Your task to perform on an android device: Show me popular games on the Play Store Image 0: 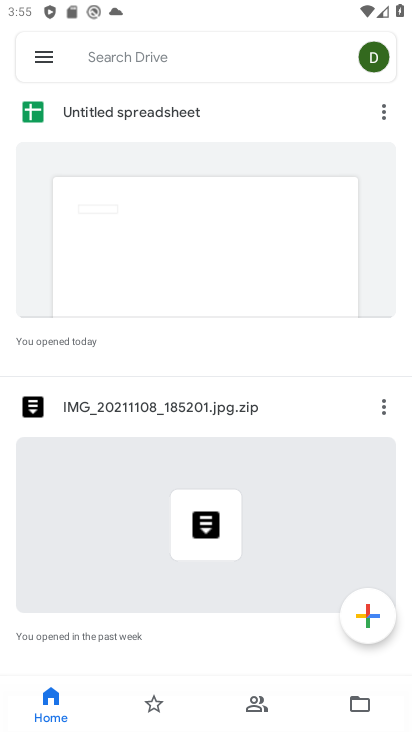
Step 0: press home button
Your task to perform on an android device: Show me popular games on the Play Store Image 1: 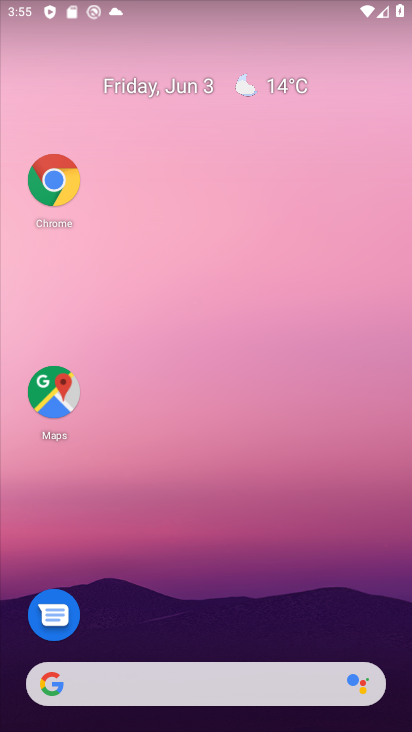
Step 1: drag from (146, 727) to (118, 62)
Your task to perform on an android device: Show me popular games on the Play Store Image 2: 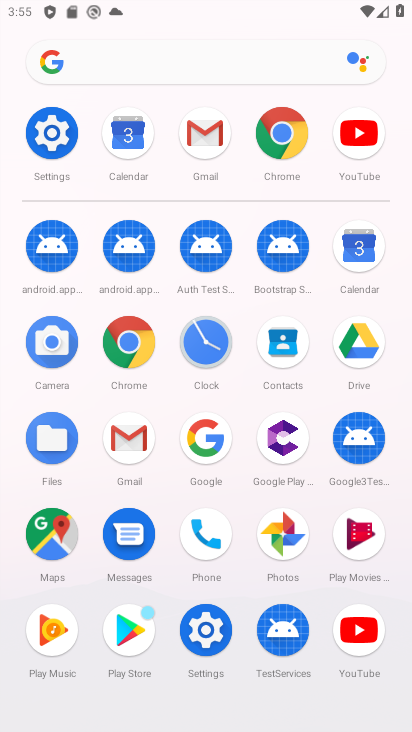
Step 2: click (115, 645)
Your task to perform on an android device: Show me popular games on the Play Store Image 3: 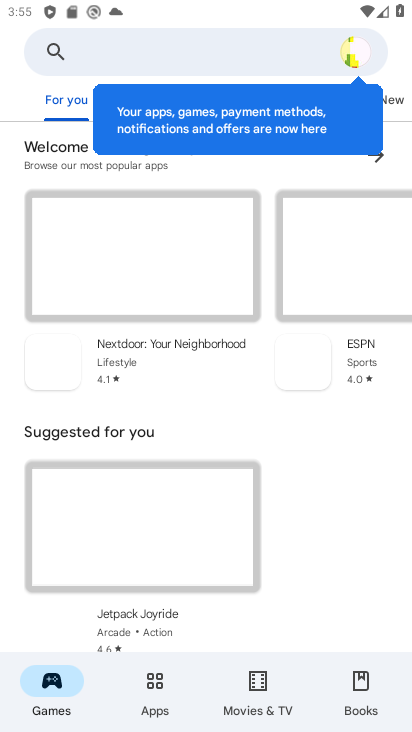
Step 3: click (21, 85)
Your task to perform on an android device: Show me popular games on the Play Store Image 4: 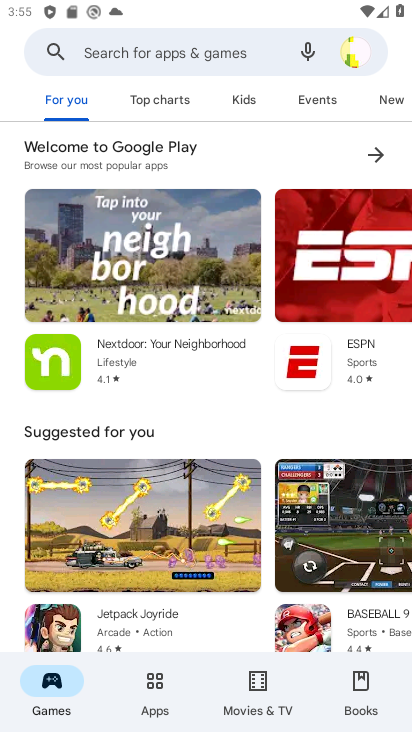
Step 4: click (168, 100)
Your task to perform on an android device: Show me popular games on the Play Store Image 5: 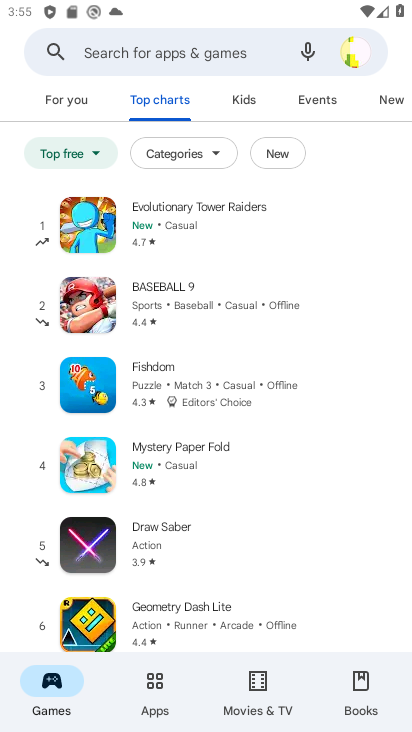
Step 5: drag from (404, 109) to (0, 93)
Your task to perform on an android device: Show me popular games on the Play Store Image 6: 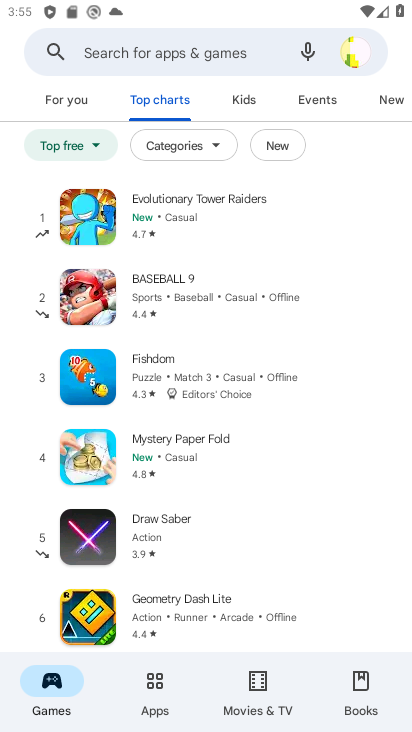
Step 6: drag from (396, 100) to (210, 146)
Your task to perform on an android device: Show me popular games on the Play Store Image 7: 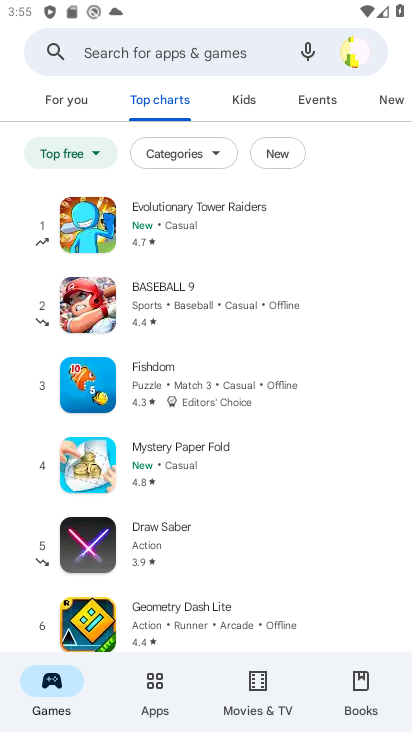
Step 7: drag from (311, 556) to (346, 147)
Your task to perform on an android device: Show me popular games on the Play Store Image 8: 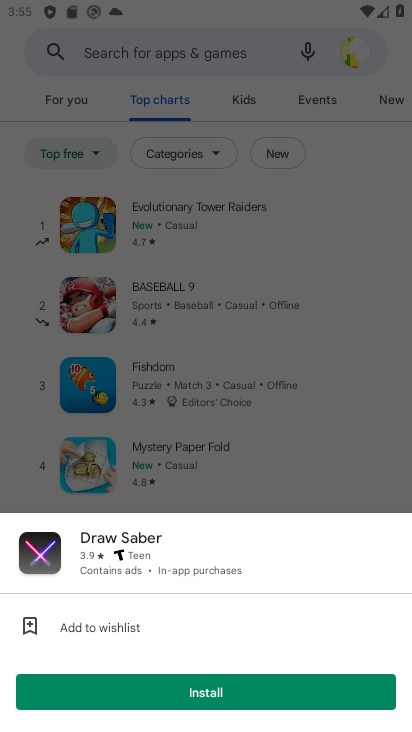
Step 8: click (339, 426)
Your task to perform on an android device: Show me popular games on the Play Store Image 9: 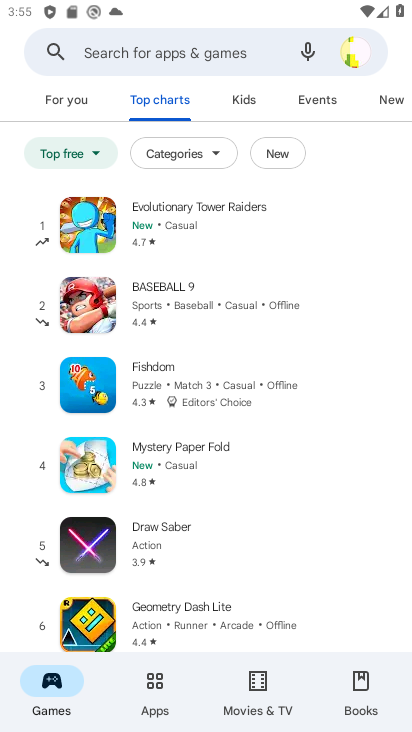
Step 9: task complete